Your task to perform on an android device: change text size in settings app Image 0: 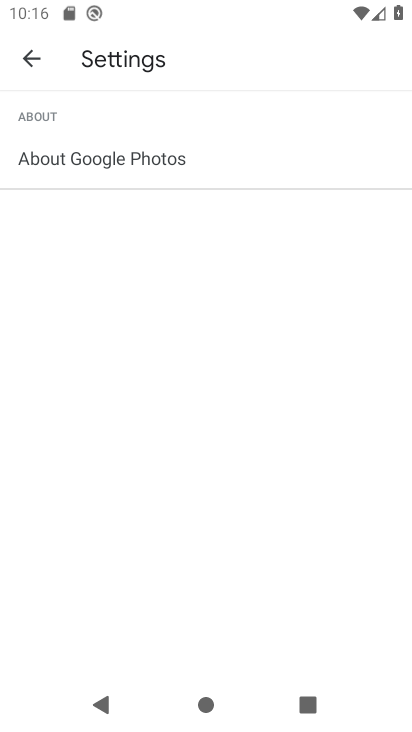
Step 0: press back button
Your task to perform on an android device: change text size in settings app Image 1: 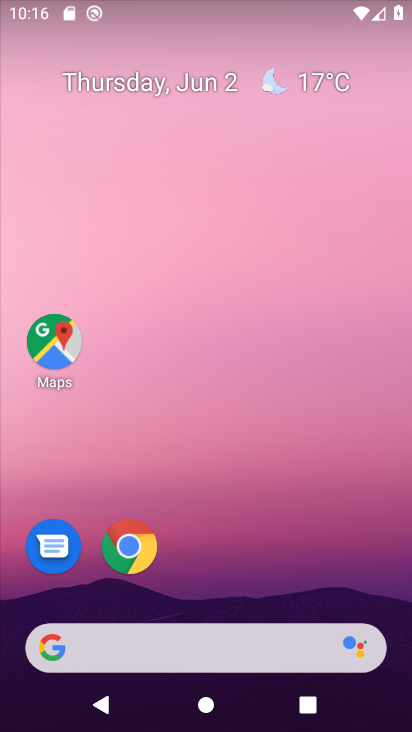
Step 1: drag from (213, 516) to (142, 35)
Your task to perform on an android device: change text size in settings app Image 2: 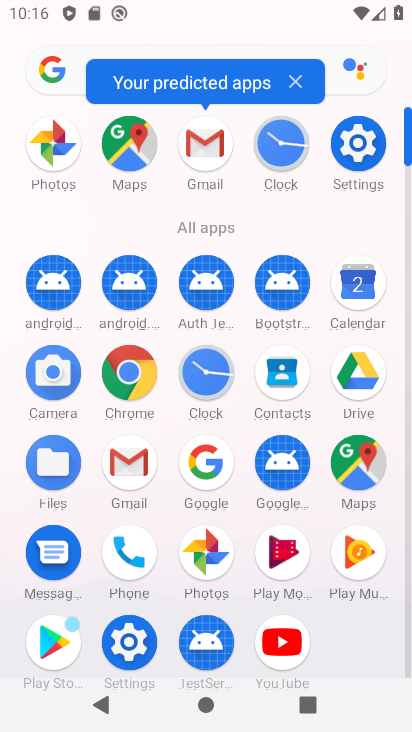
Step 2: click (357, 141)
Your task to perform on an android device: change text size in settings app Image 3: 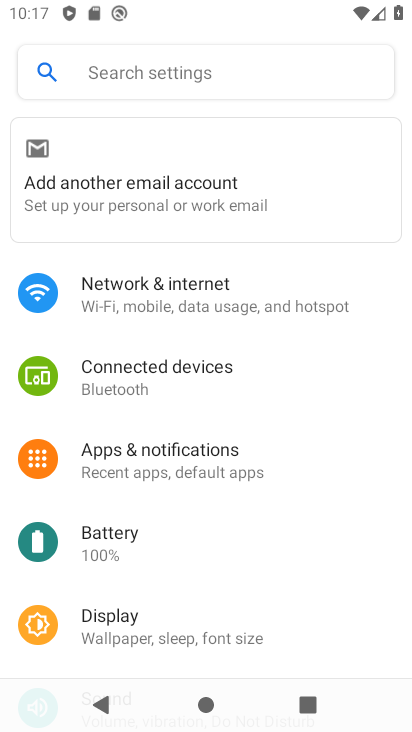
Step 3: drag from (239, 565) to (264, 169)
Your task to perform on an android device: change text size in settings app Image 4: 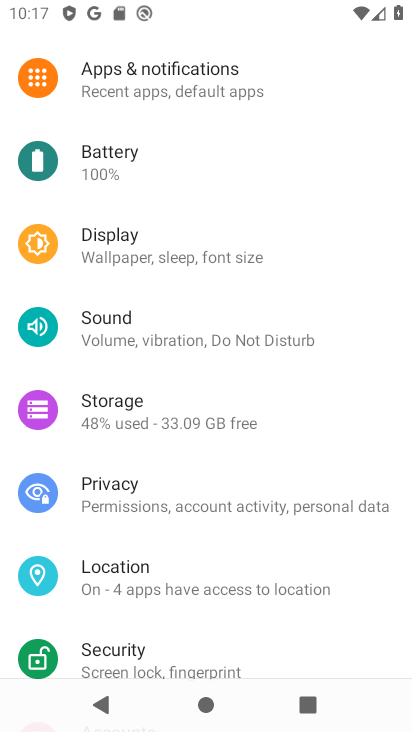
Step 4: drag from (231, 613) to (257, 211)
Your task to perform on an android device: change text size in settings app Image 5: 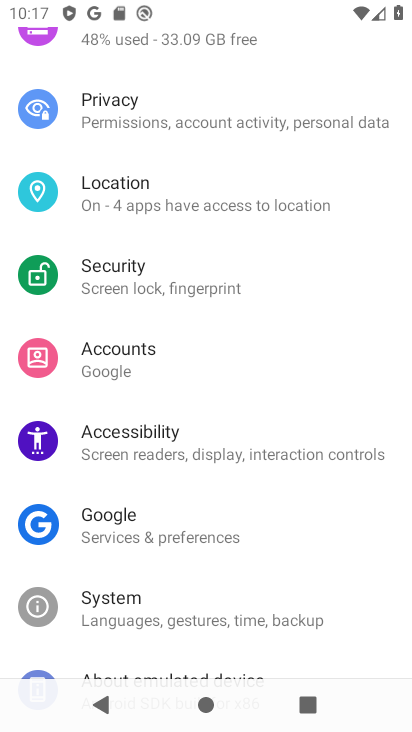
Step 5: drag from (222, 611) to (227, 232)
Your task to perform on an android device: change text size in settings app Image 6: 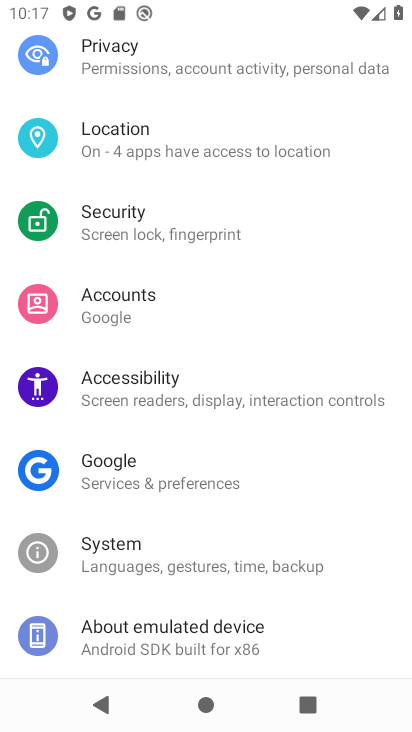
Step 6: drag from (230, 158) to (222, 513)
Your task to perform on an android device: change text size in settings app Image 7: 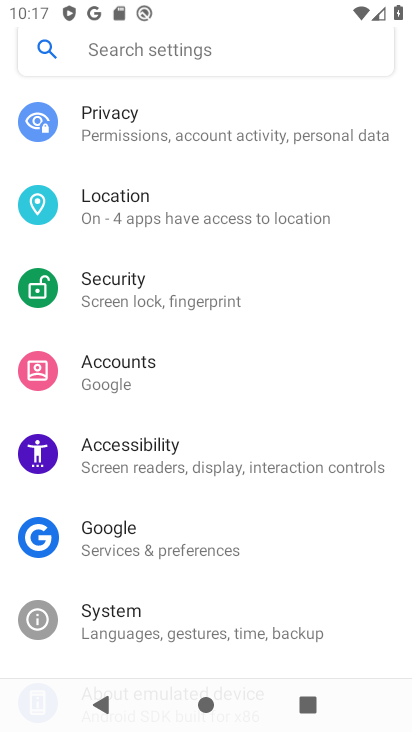
Step 7: drag from (246, 450) to (248, 546)
Your task to perform on an android device: change text size in settings app Image 8: 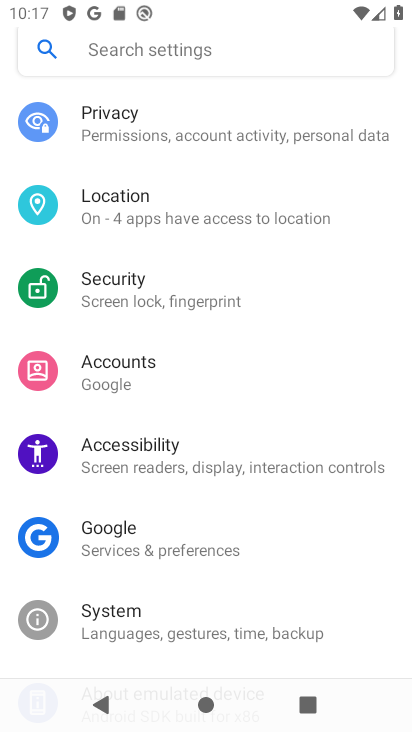
Step 8: drag from (248, 175) to (230, 526)
Your task to perform on an android device: change text size in settings app Image 9: 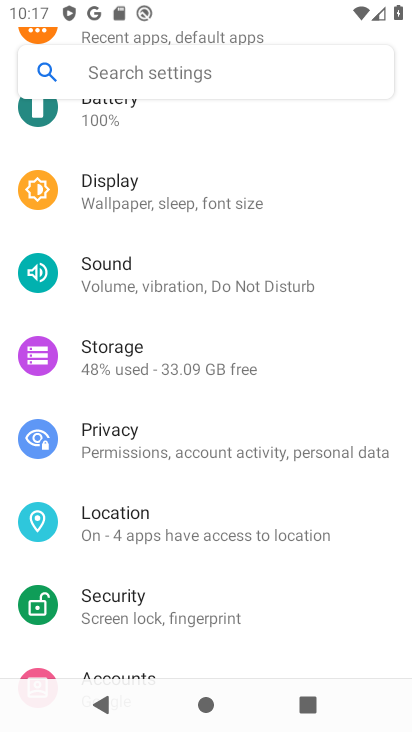
Step 9: click (186, 192)
Your task to perform on an android device: change text size in settings app Image 10: 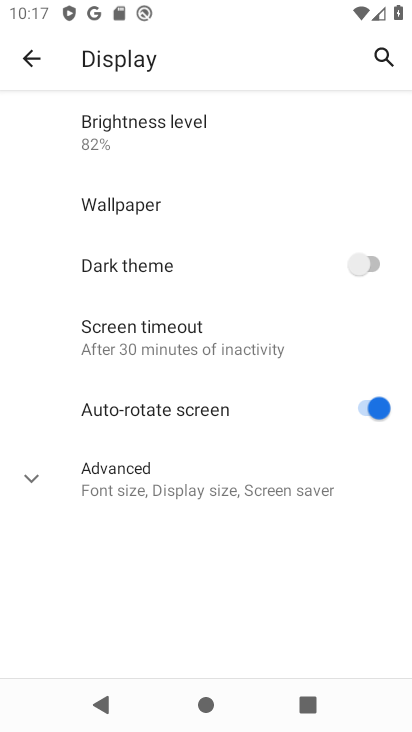
Step 10: click (27, 482)
Your task to perform on an android device: change text size in settings app Image 11: 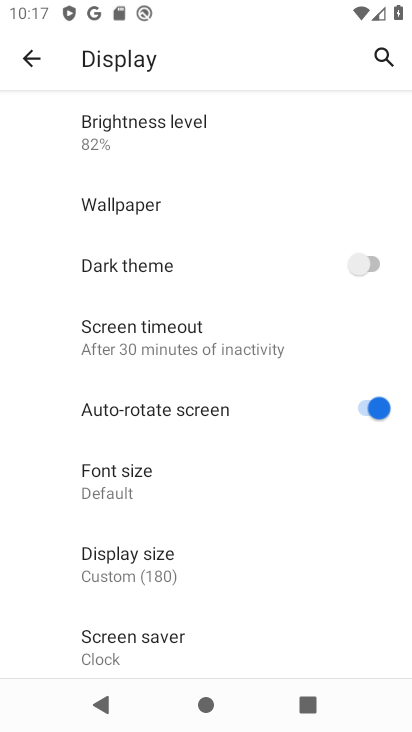
Step 11: click (140, 475)
Your task to perform on an android device: change text size in settings app Image 12: 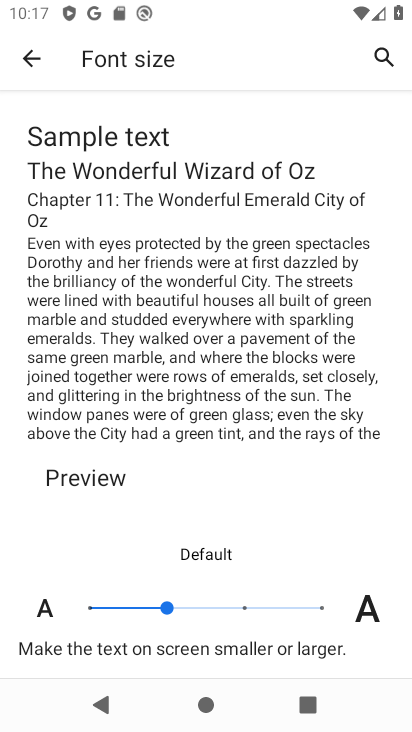
Step 12: click (242, 601)
Your task to perform on an android device: change text size in settings app Image 13: 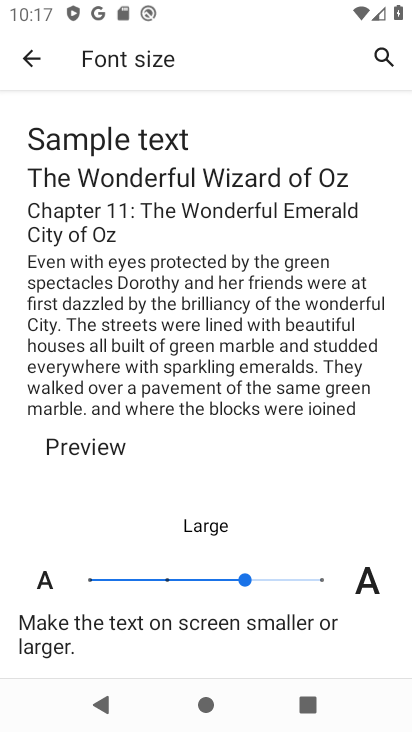
Step 13: task complete